Your task to perform on an android device: turn on improve location accuracy Image 0: 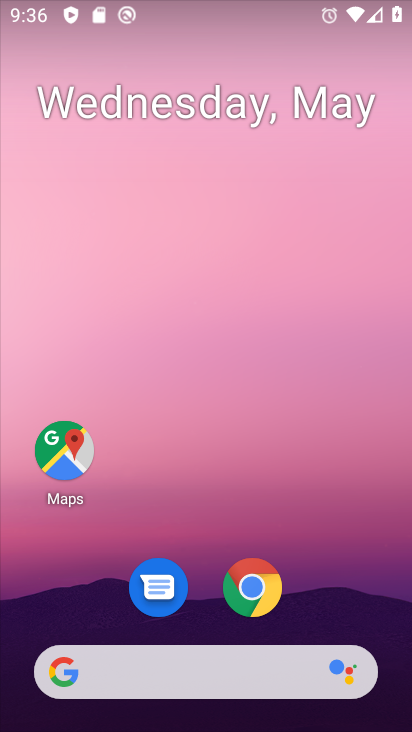
Step 0: drag from (76, 640) to (193, 198)
Your task to perform on an android device: turn on improve location accuracy Image 1: 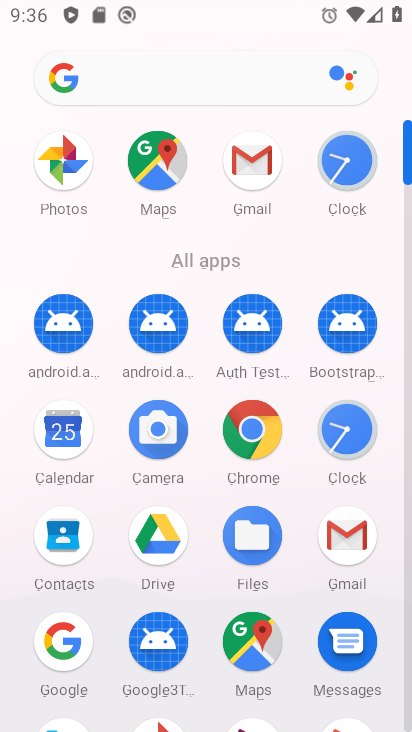
Step 1: drag from (161, 645) to (226, 392)
Your task to perform on an android device: turn on improve location accuracy Image 2: 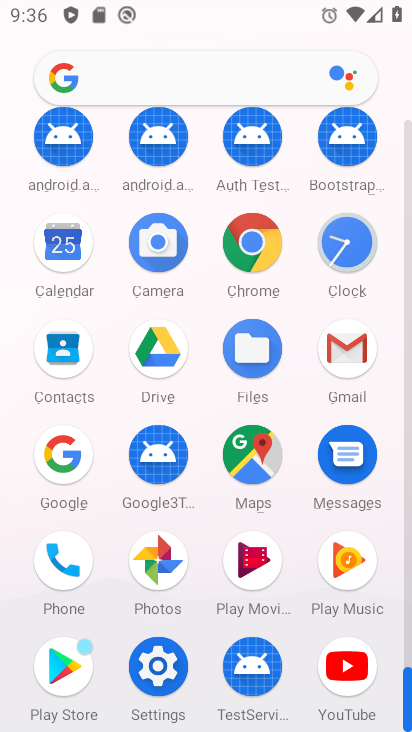
Step 2: click (155, 673)
Your task to perform on an android device: turn on improve location accuracy Image 3: 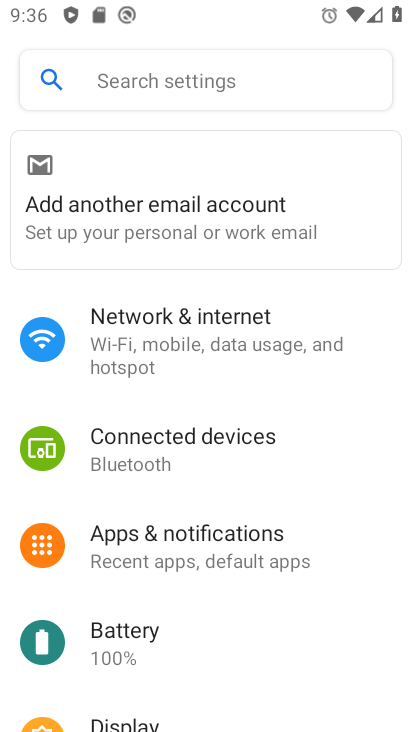
Step 3: drag from (149, 654) to (246, 230)
Your task to perform on an android device: turn on improve location accuracy Image 4: 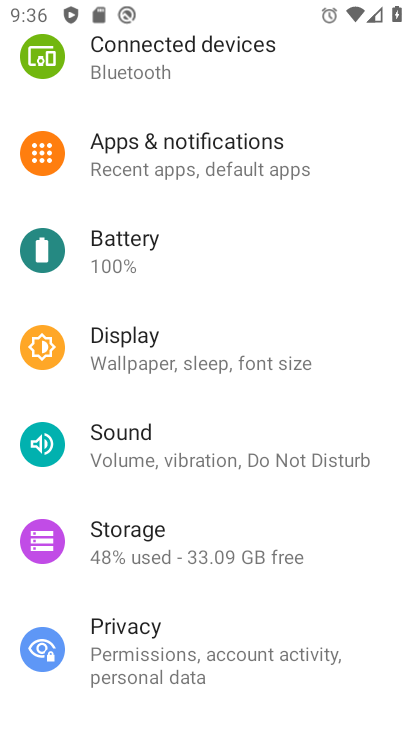
Step 4: drag from (204, 367) to (299, 279)
Your task to perform on an android device: turn on improve location accuracy Image 5: 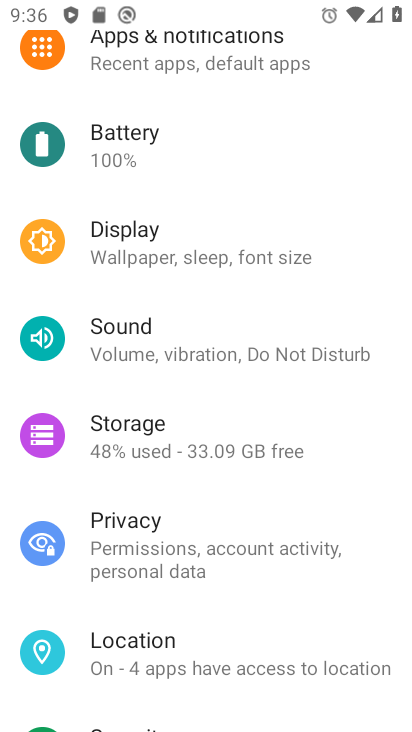
Step 5: click (190, 669)
Your task to perform on an android device: turn on improve location accuracy Image 6: 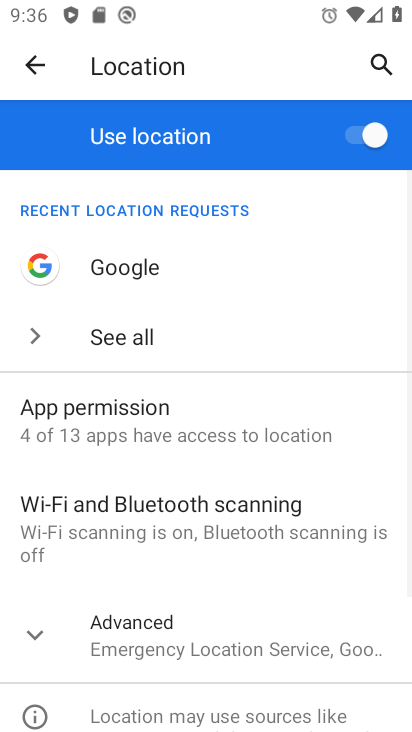
Step 6: drag from (107, 663) to (206, 404)
Your task to perform on an android device: turn on improve location accuracy Image 7: 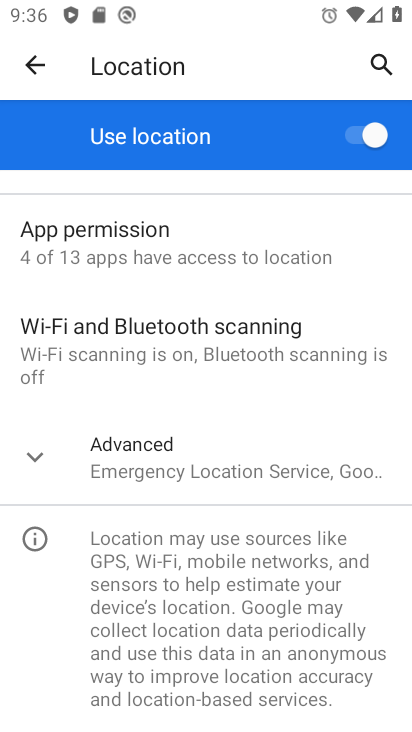
Step 7: click (169, 449)
Your task to perform on an android device: turn on improve location accuracy Image 8: 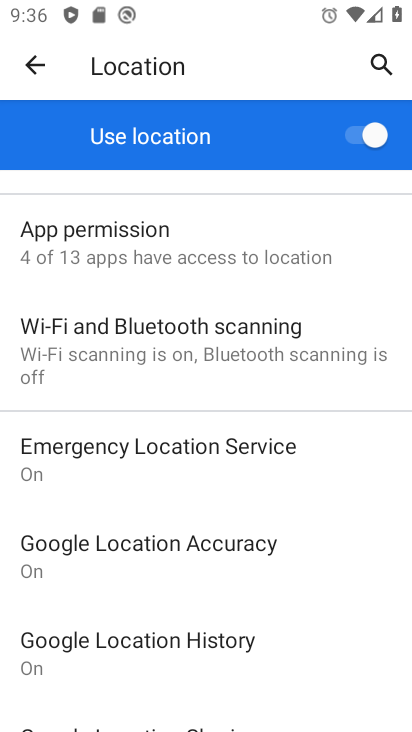
Step 8: click (164, 537)
Your task to perform on an android device: turn on improve location accuracy Image 9: 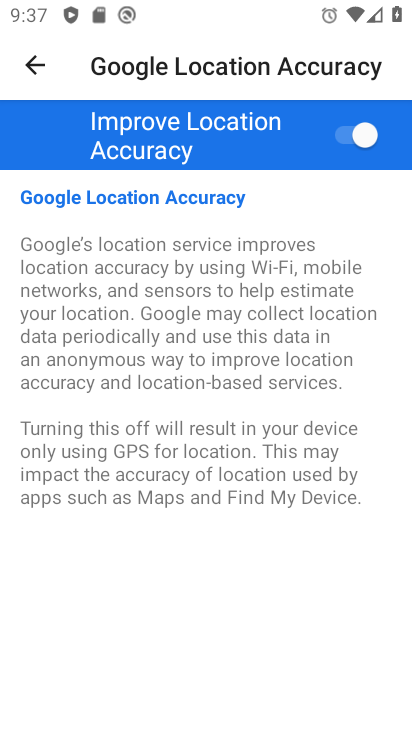
Step 9: task complete